Your task to perform on an android device: see creations saved in the google photos Image 0: 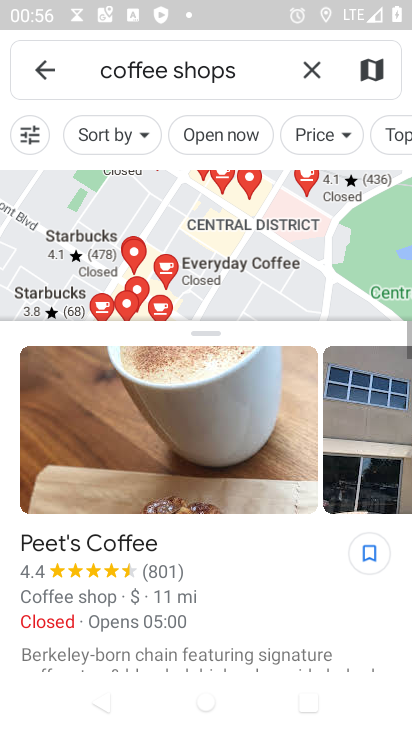
Step 0: press home button
Your task to perform on an android device: see creations saved in the google photos Image 1: 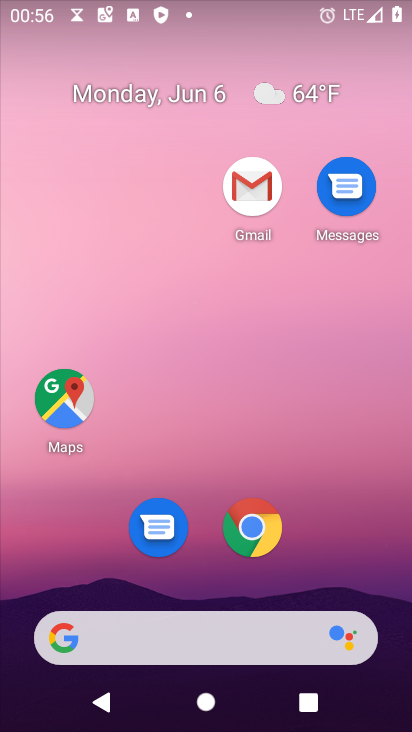
Step 1: drag from (347, 568) to (313, 58)
Your task to perform on an android device: see creations saved in the google photos Image 2: 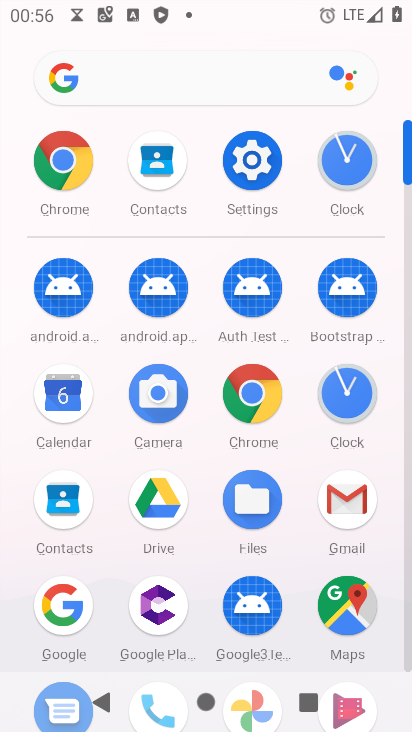
Step 2: drag from (304, 641) to (304, 195)
Your task to perform on an android device: see creations saved in the google photos Image 3: 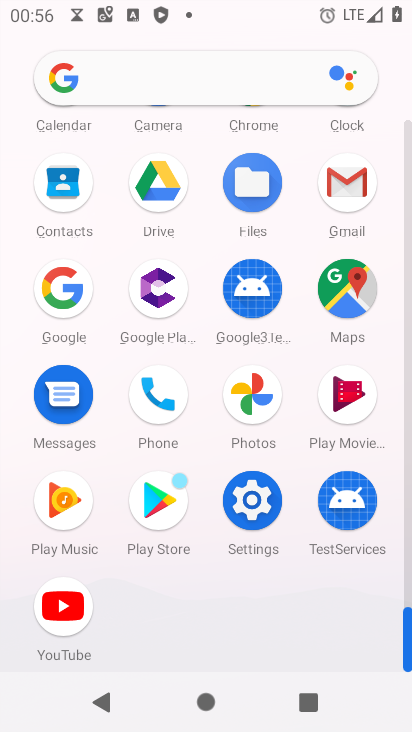
Step 3: click (233, 387)
Your task to perform on an android device: see creations saved in the google photos Image 4: 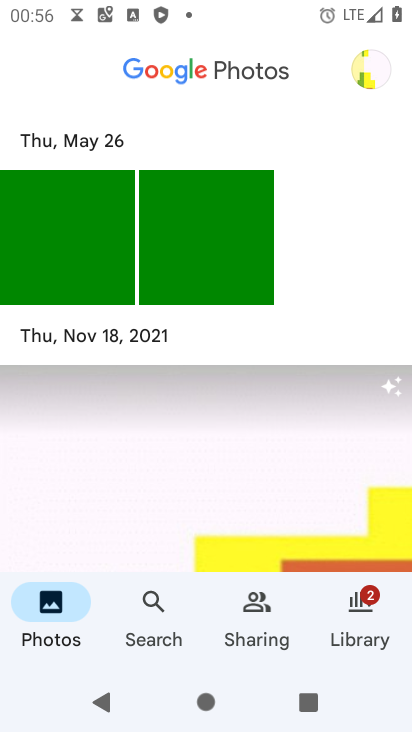
Step 4: drag from (227, 493) to (244, 111)
Your task to perform on an android device: see creations saved in the google photos Image 5: 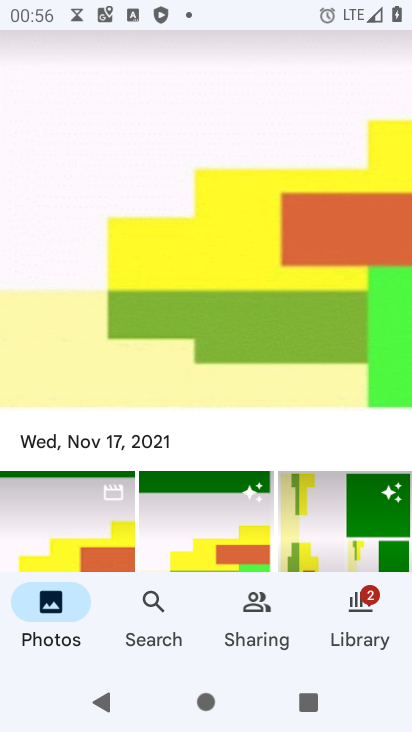
Step 5: drag from (306, 202) to (340, 540)
Your task to perform on an android device: see creations saved in the google photos Image 6: 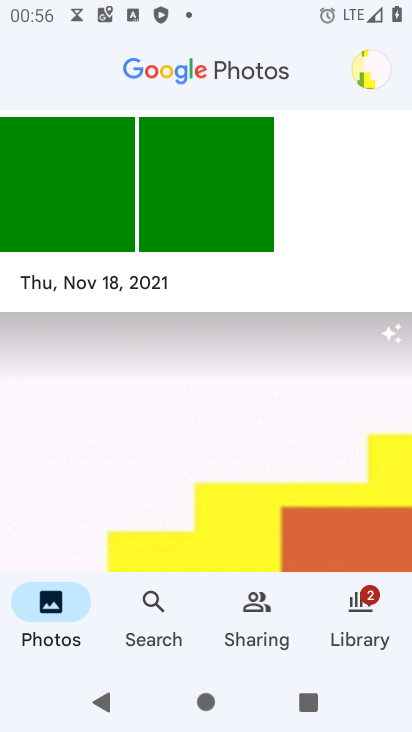
Step 6: click (359, 55)
Your task to perform on an android device: see creations saved in the google photos Image 7: 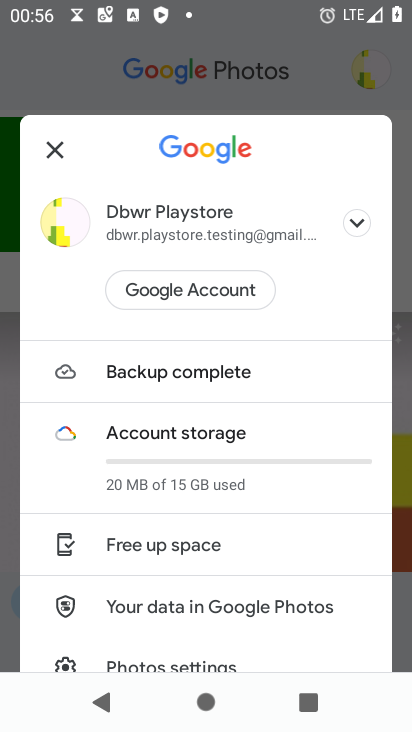
Step 7: drag from (317, 539) to (291, 164)
Your task to perform on an android device: see creations saved in the google photos Image 8: 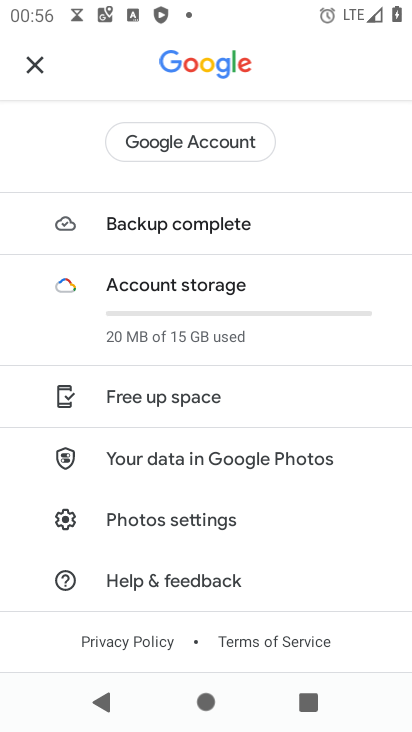
Step 8: click (206, 520)
Your task to perform on an android device: see creations saved in the google photos Image 9: 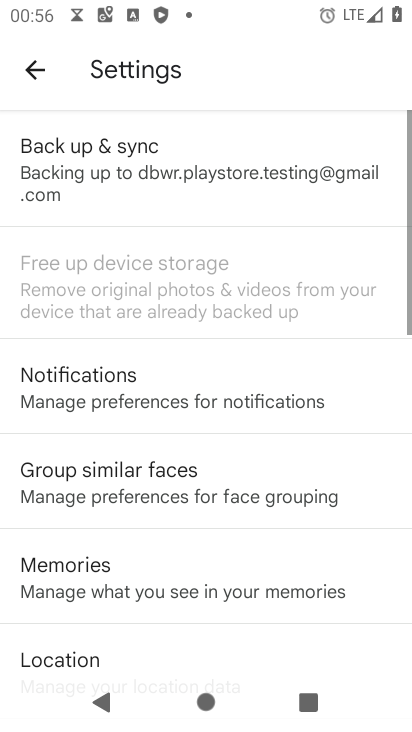
Step 9: drag from (227, 548) to (221, 137)
Your task to perform on an android device: see creations saved in the google photos Image 10: 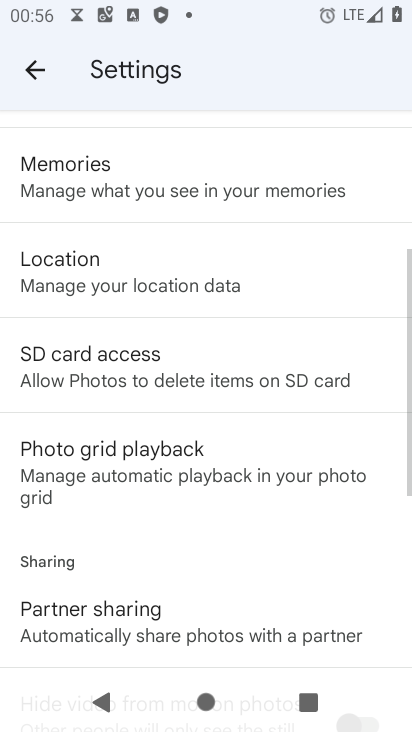
Step 10: drag from (203, 490) to (191, 120)
Your task to perform on an android device: see creations saved in the google photos Image 11: 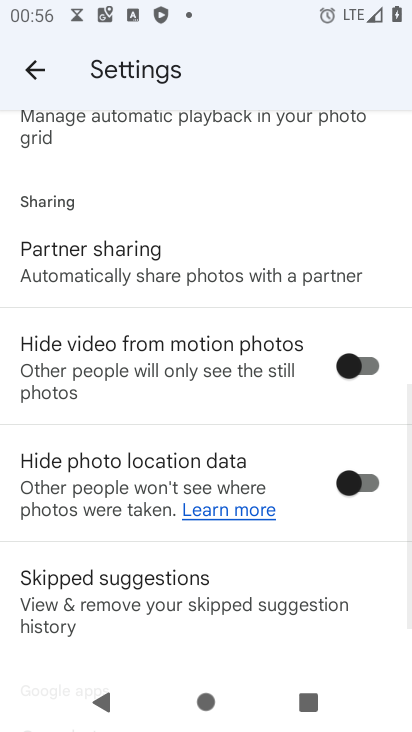
Step 11: drag from (171, 510) to (179, 119)
Your task to perform on an android device: see creations saved in the google photos Image 12: 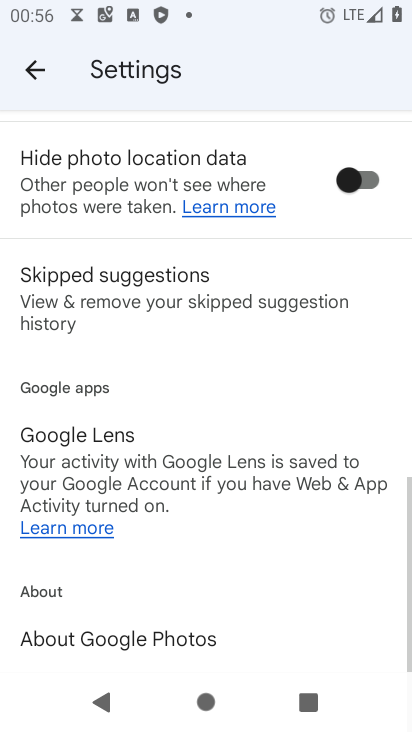
Step 12: drag from (143, 617) to (179, 180)
Your task to perform on an android device: see creations saved in the google photos Image 13: 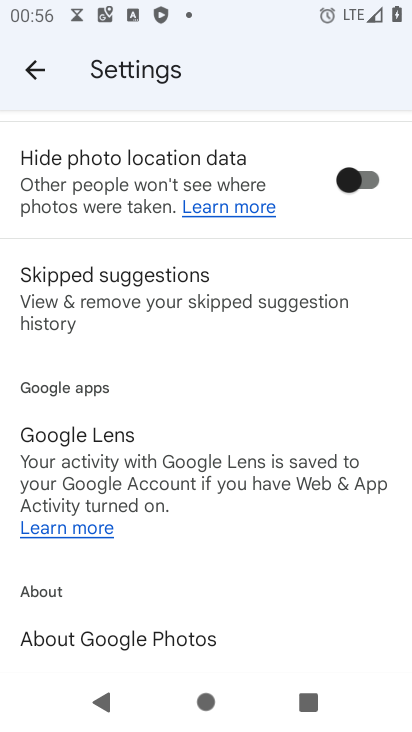
Step 13: click (143, 609)
Your task to perform on an android device: see creations saved in the google photos Image 14: 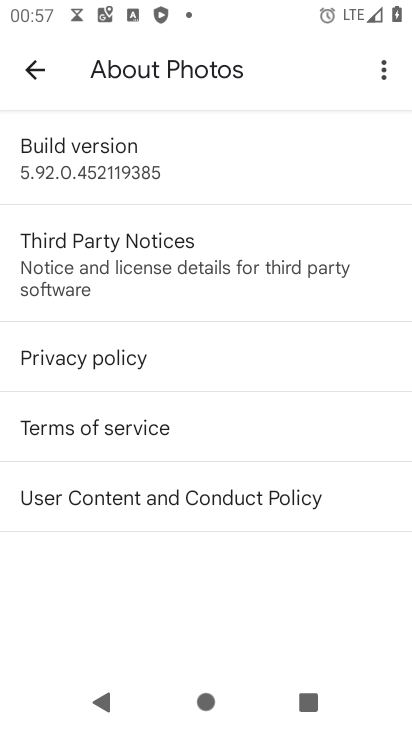
Step 14: task complete